Your task to perform on an android device: turn off improve location accuracy Image 0: 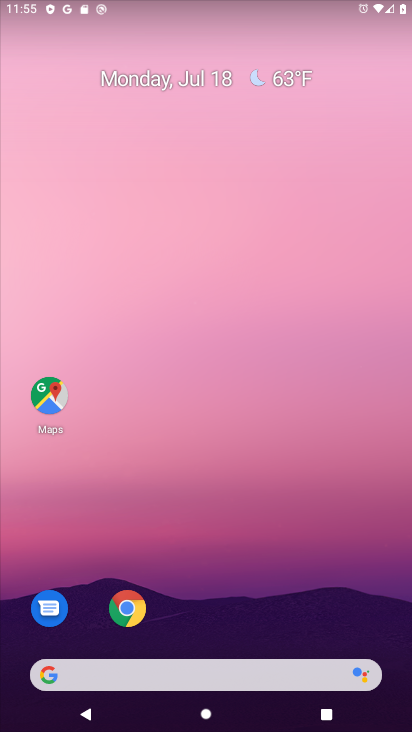
Step 0: drag from (265, 606) to (311, 103)
Your task to perform on an android device: turn off improve location accuracy Image 1: 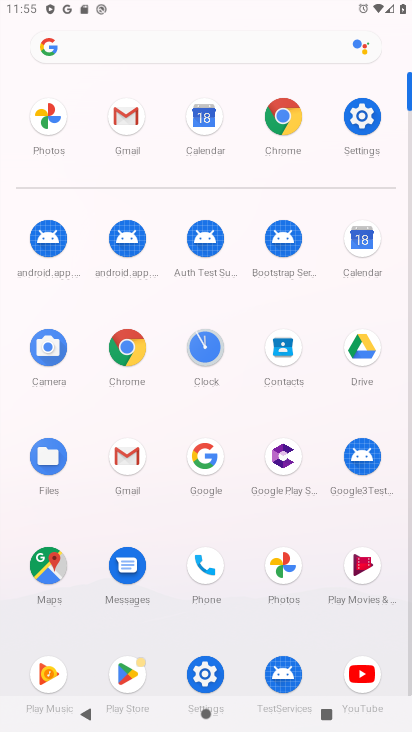
Step 1: click (358, 106)
Your task to perform on an android device: turn off improve location accuracy Image 2: 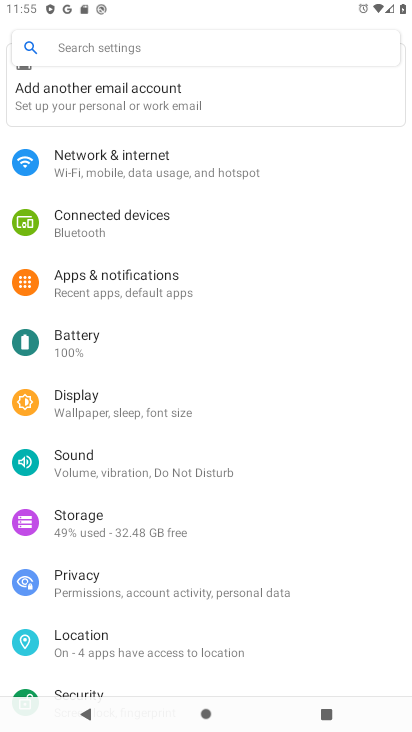
Step 2: click (103, 658)
Your task to perform on an android device: turn off improve location accuracy Image 3: 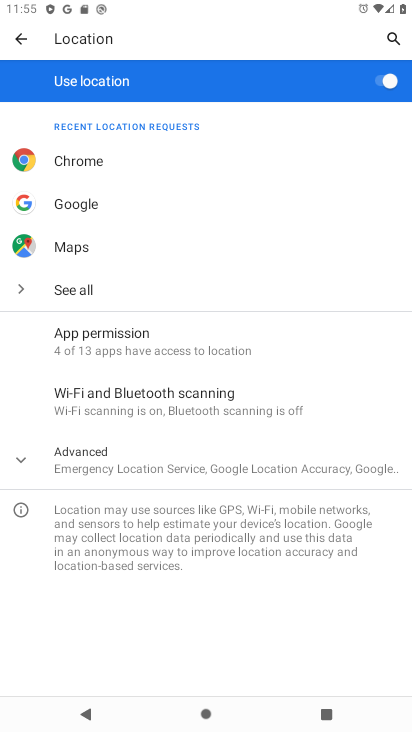
Step 3: click (145, 456)
Your task to perform on an android device: turn off improve location accuracy Image 4: 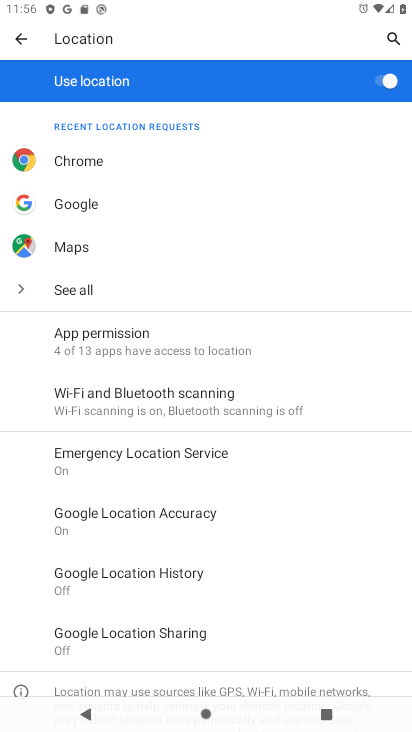
Step 4: click (121, 505)
Your task to perform on an android device: turn off improve location accuracy Image 5: 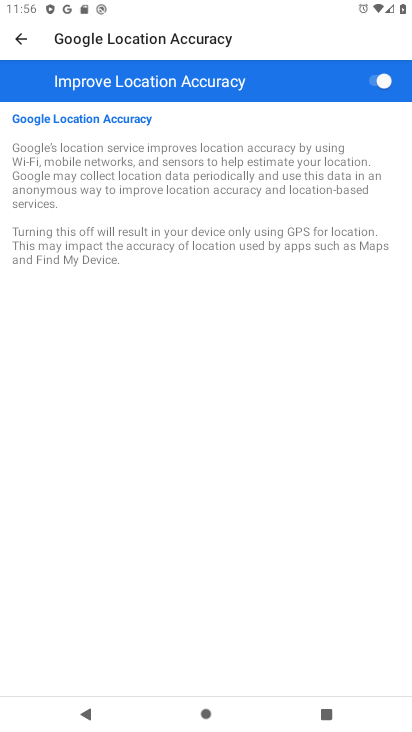
Step 5: click (397, 68)
Your task to perform on an android device: turn off improve location accuracy Image 6: 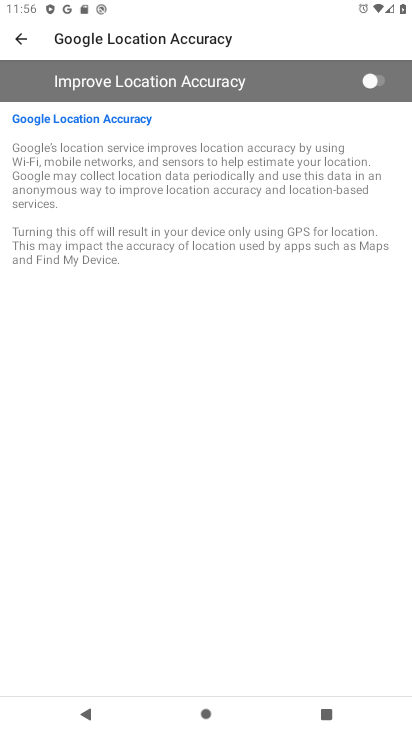
Step 6: task complete